Your task to perform on an android device: turn off javascript in the chrome app Image 0: 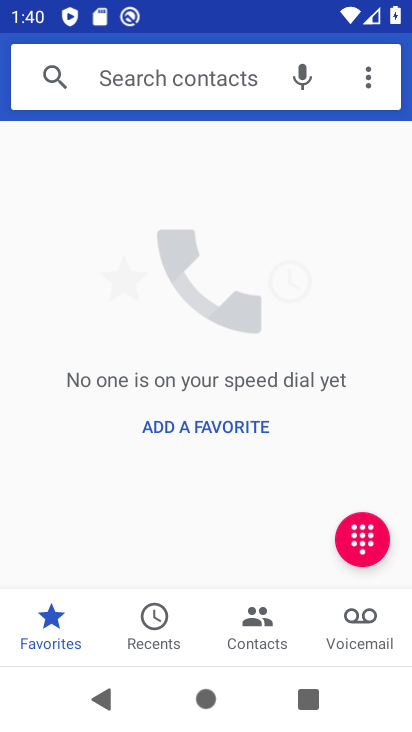
Step 0: press home button
Your task to perform on an android device: turn off javascript in the chrome app Image 1: 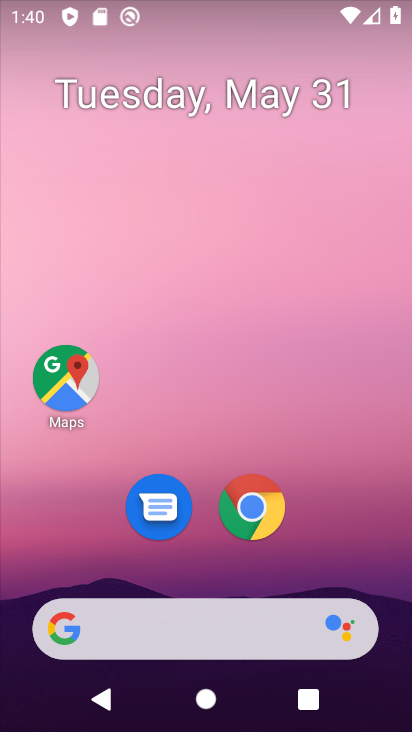
Step 1: click (244, 517)
Your task to perform on an android device: turn off javascript in the chrome app Image 2: 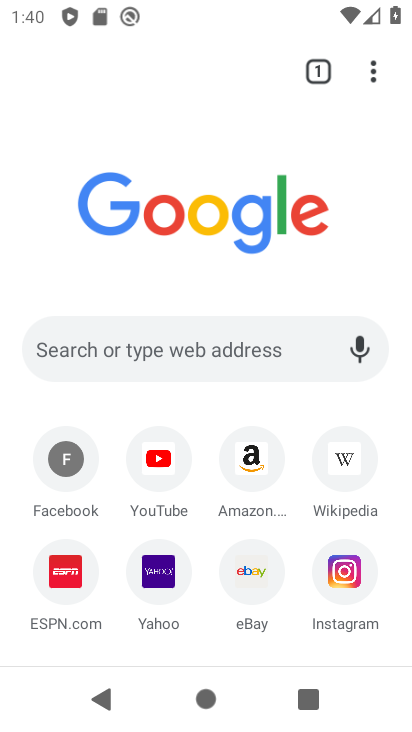
Step 2: click (387, 73)
Your task to perform on an android device: turn off javascript in the chrome app Image 3: 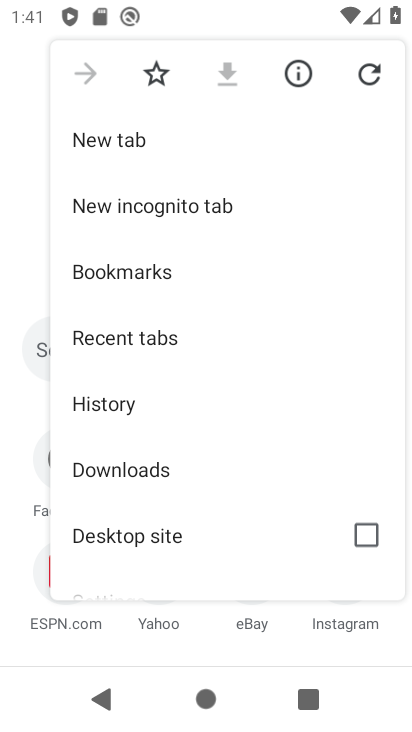
Step 3: drag from (196, 366) to (179, 44)
Your task to perform on an android device: turn off javascript in the chrome app Image 4: 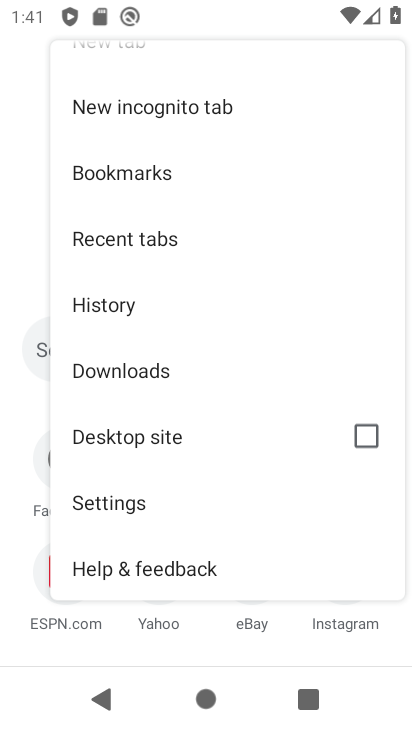
Step 4: drag from (142, 536) to (188, 113)
Your task to perform on an android device: turn off javascript in the chrome app Image 5: 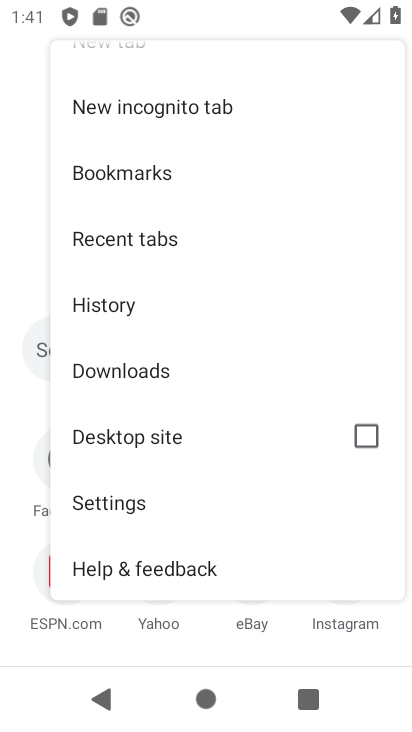
Step 5: click (131, 519)
Your task to perform on an android device: turn off javascript in the chrome app Image 6: 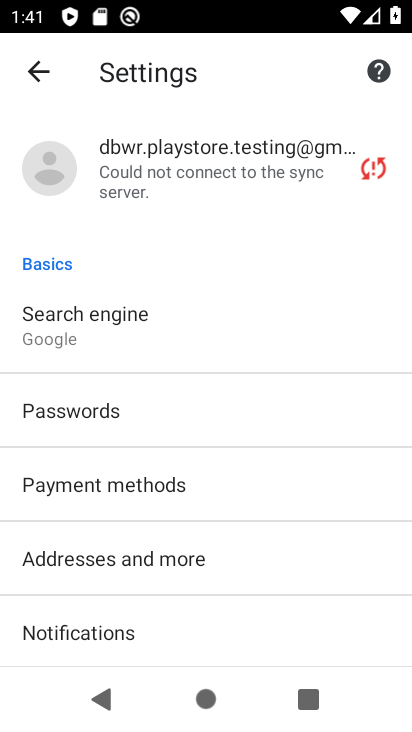
Step 6: drag from (131, 519) to (294, 39)
Your task to perform on an android device: turn off javascript in the chrome app Image 7: 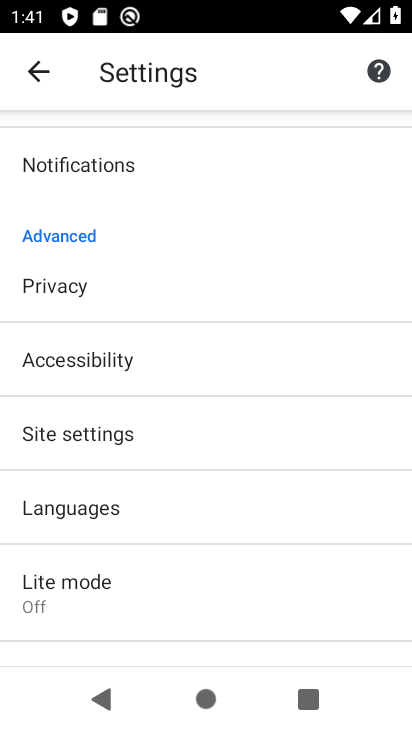
Step 7: click (126, 436)
Your task to perform on an android device: turn off javascript in the chrome app Image 8: 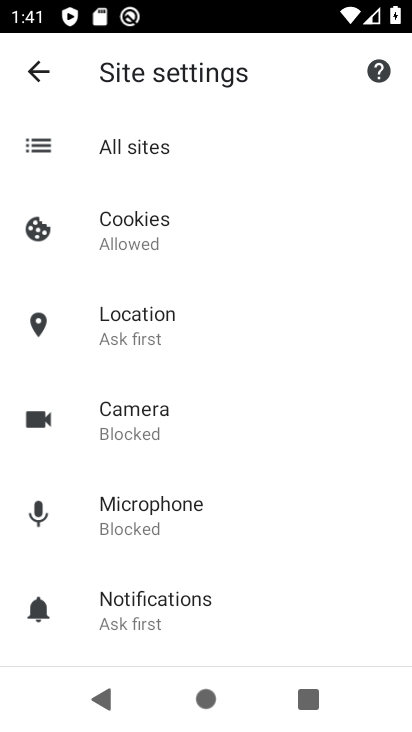
Step 8: drag from (111, 644) to (216, 170)
Your task to perform on an android device: turn off javascript in the chrome app Image 9: 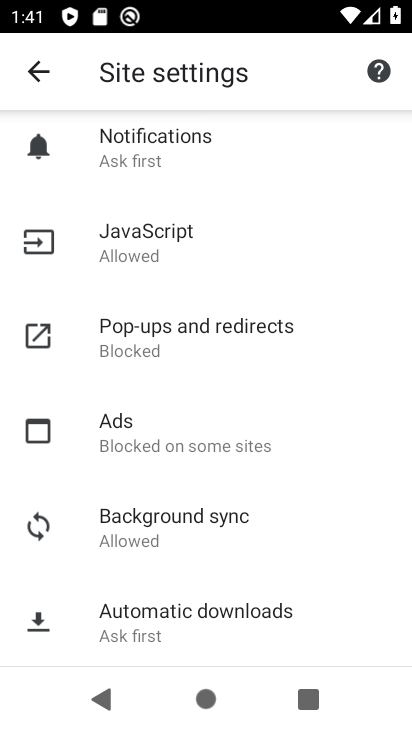
Step 9: click (187, 242)
Your task to perform on an android device: turn off javascript in the chrome app Image 10: 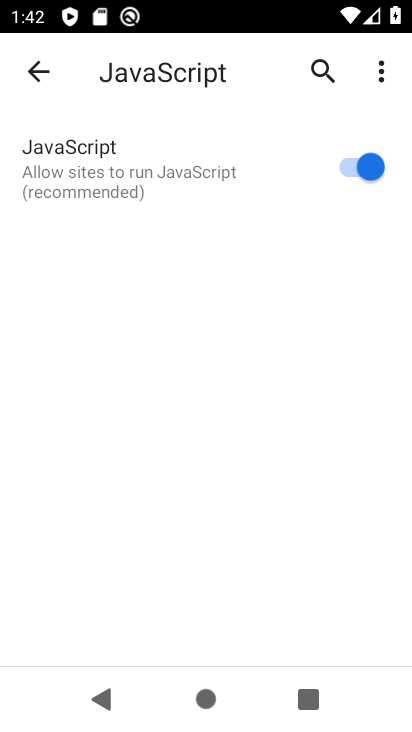
Step 10: click (354, 167)
Your task to perform on an android device: turn off javascript in the chrome app Image 11: 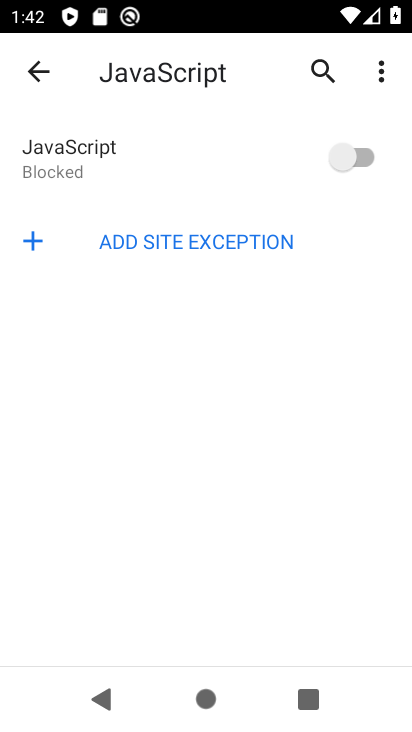
Step 11: task complete